Your task to perform on an android device: Clear the cart on target.com. Add "logitech g pro" to the cart on target.com, then select checkout. Image 0: 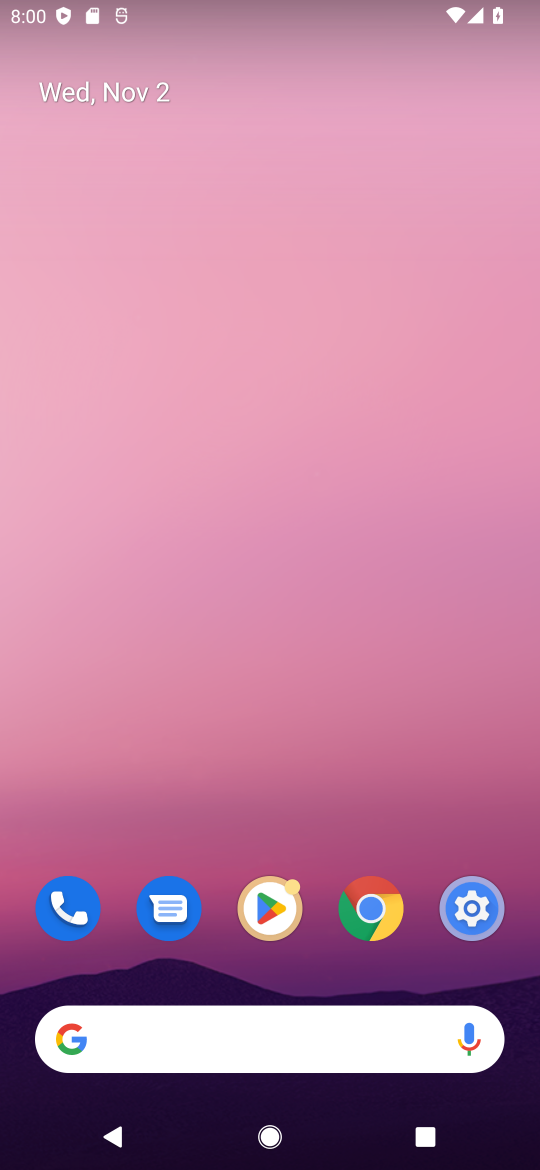
Step 0: click (285, 1041)
Your task to perform on an android device: Clear the cart on target.com. Add "logitech g pro" to the cart on target.com, then select checkout. Image 1: 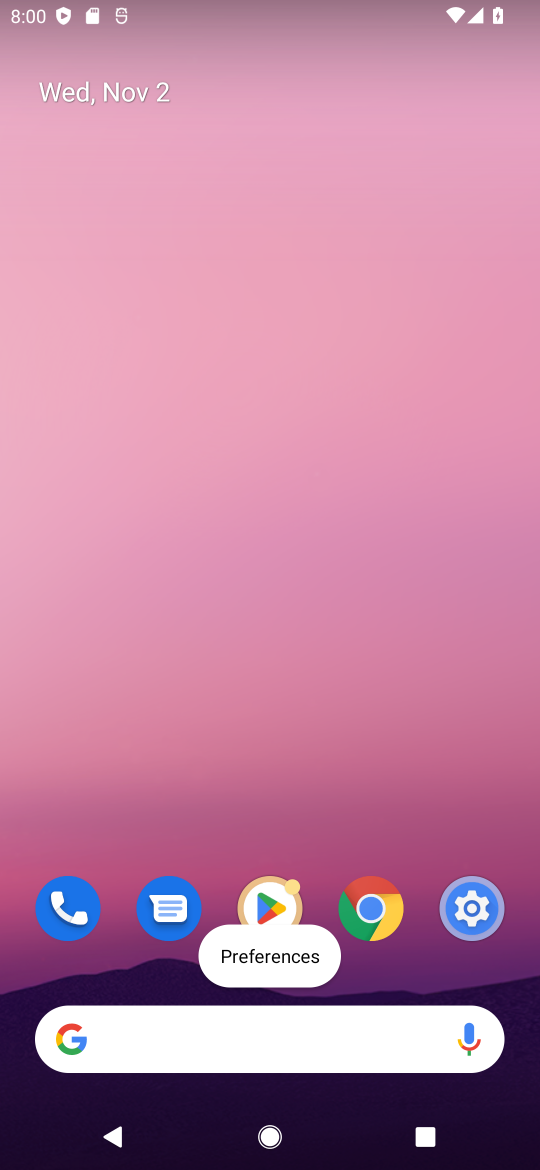
Step 1: click (247, 1015)
Your task to perform on an android device: Clear the cart on target.com. Add "logitech g pro" to the cart on target.com, then select checkout. Image 2: 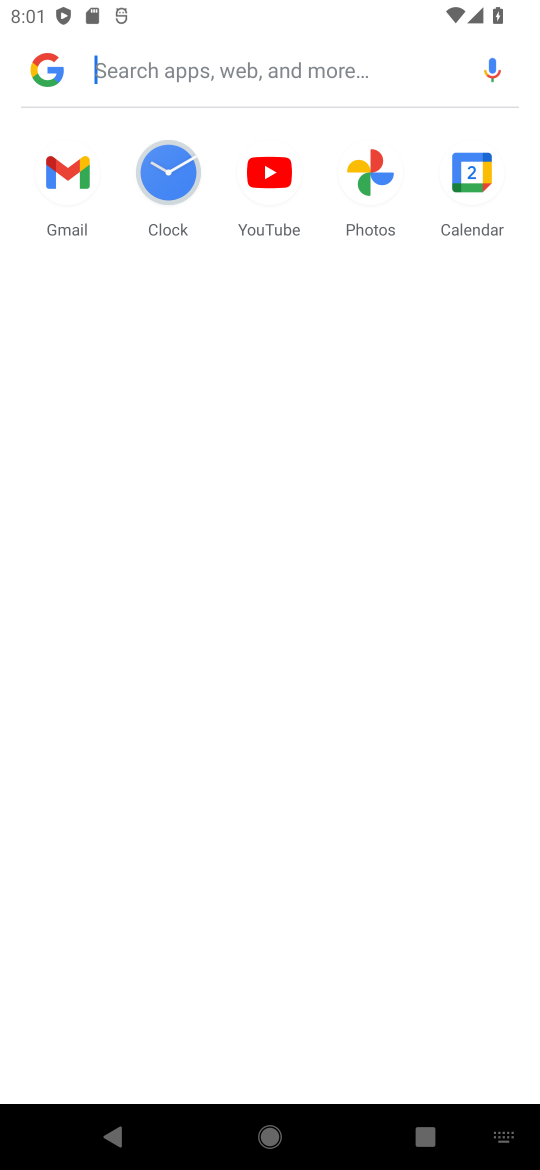
Step 2: click (64, 1146)
Your task to perform on an android device: Clear the cart on target.com. Add "logitech g pro" to the cart on target.com, then select checkout. Image 3: 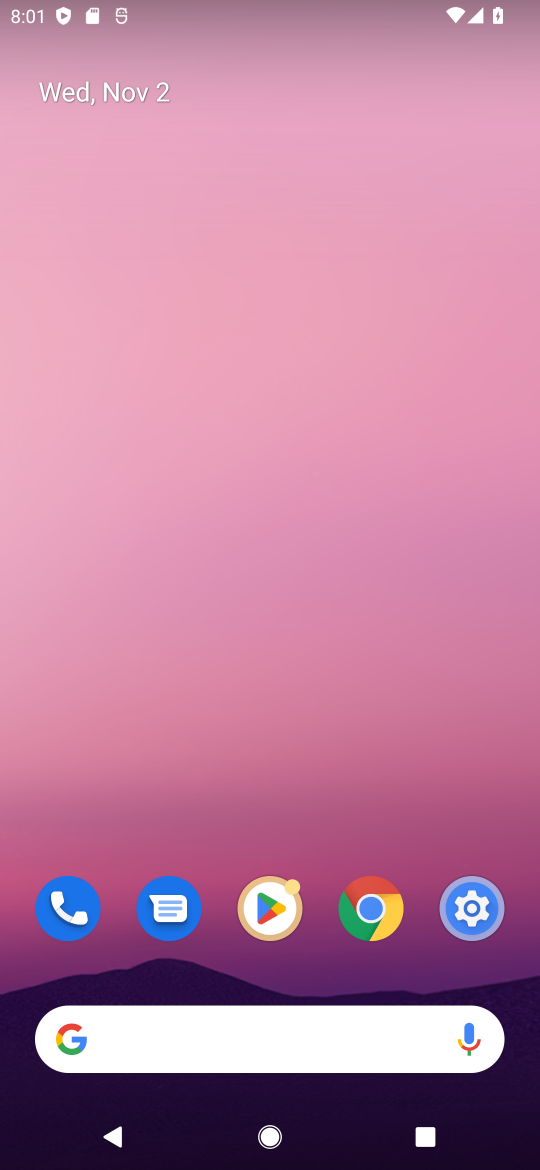
Step 3: click (198, 1015)
Your task to perform on an android device: Clear the cart on target.com. Add "logitech g pro" to the cart on target.com, then select checkout. Image 4: 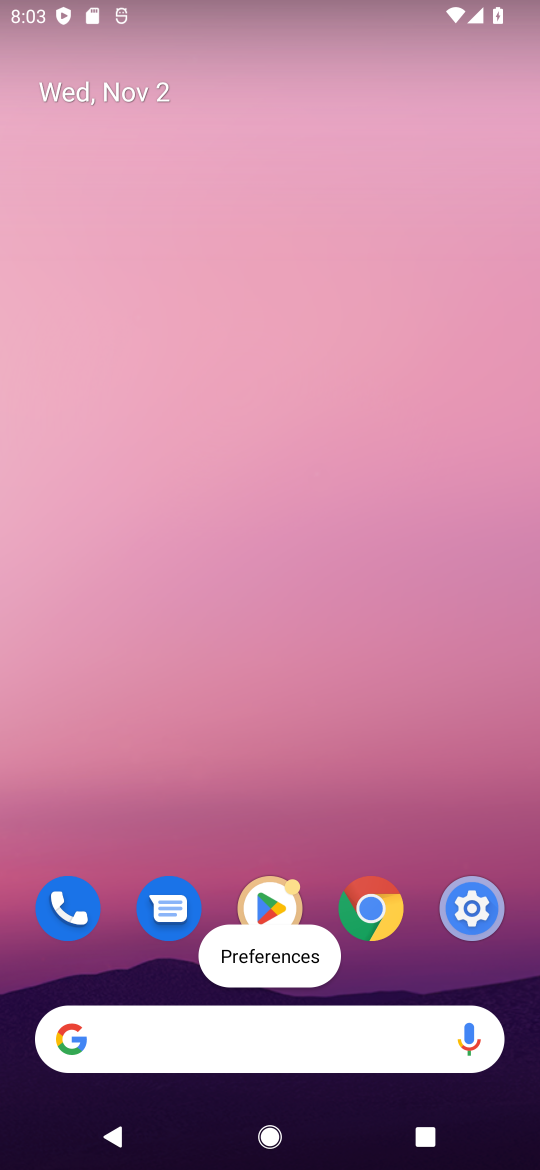
Step 4: task complete